Your task to perform on an android device: move an email to a new category in the gmail app Image 0: 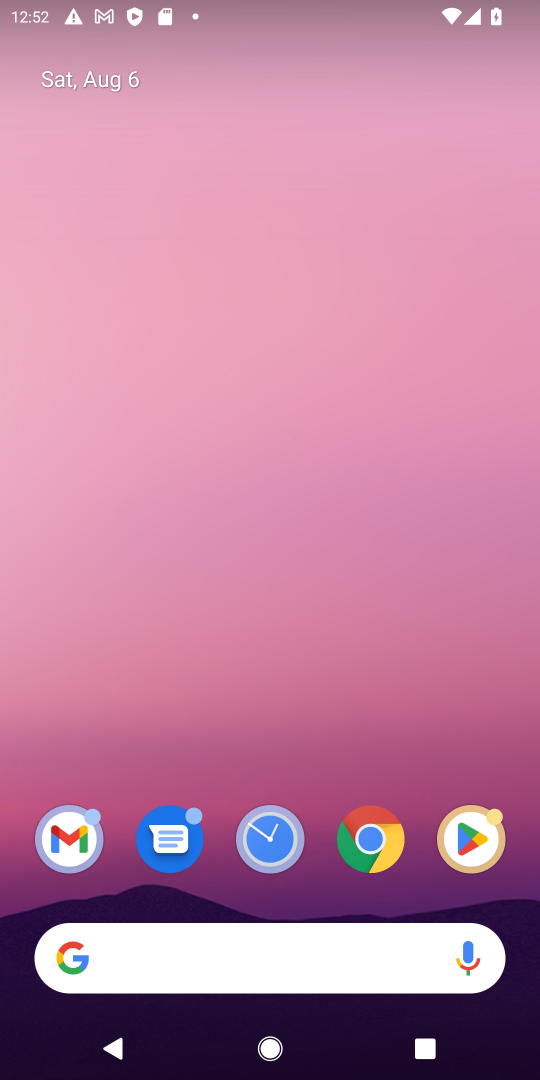
Step 0: click (48, 828)
Your task to perform on an android device: move an email to a new category in the gmail app Image 1: 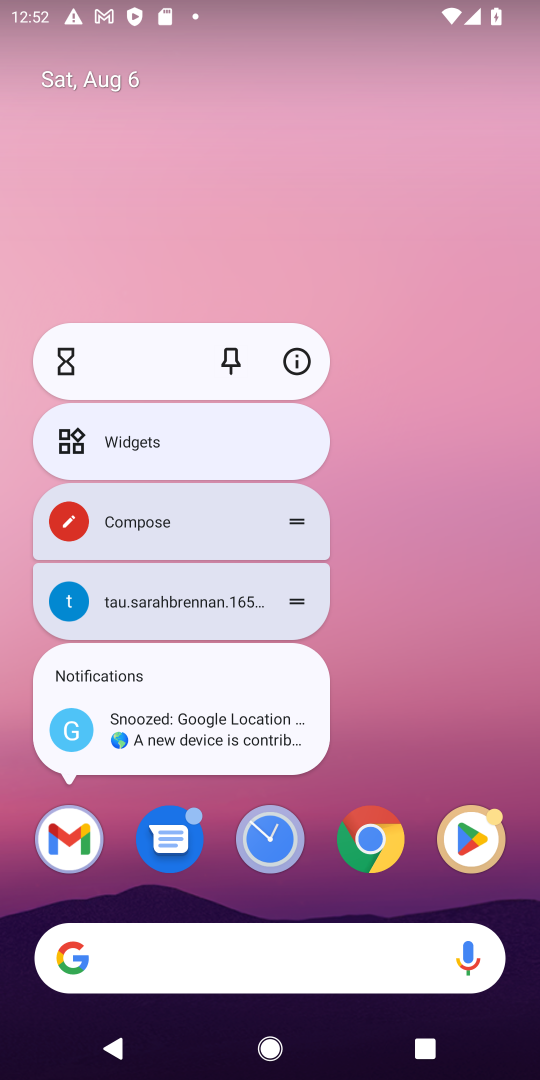
Step 1: click (48, 828)
Your task to perform on an android device: move an email to a new category in the gmail app Image 2: 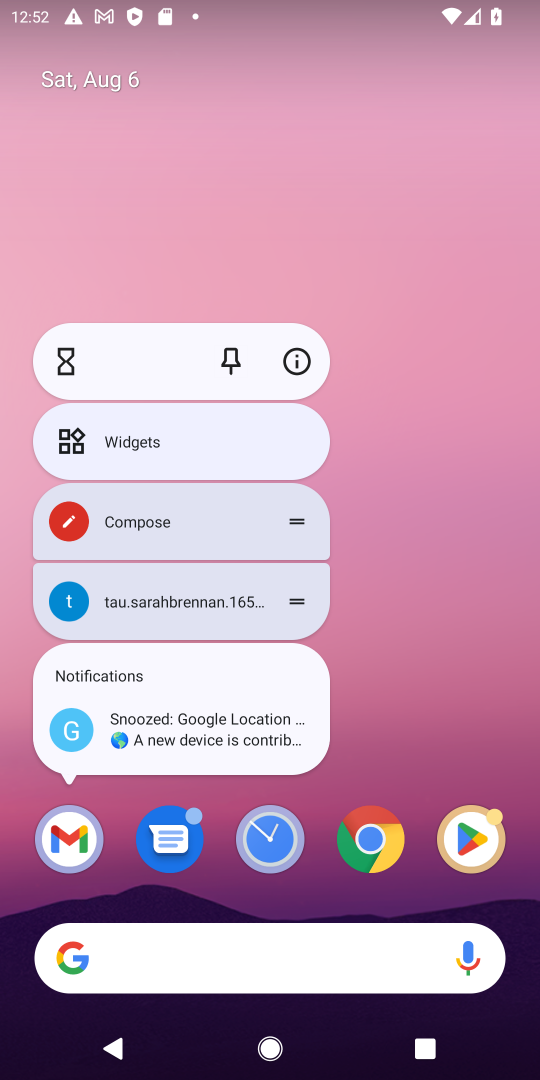
Step 2: click (79, 831)
Your task to perform on an android device: move an email to a new category in the gmail app Image 3: 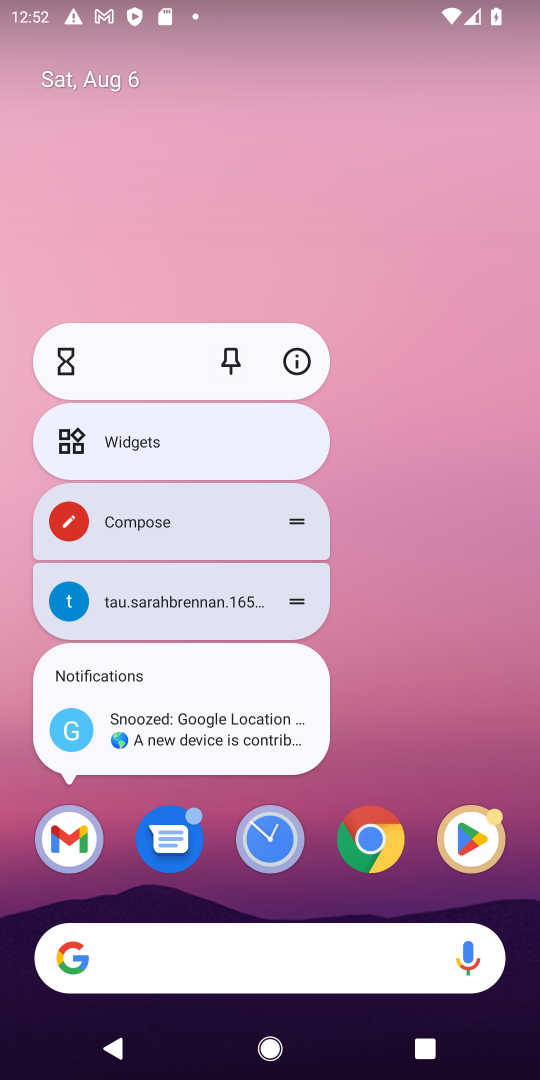
Step 3: click (79, 831)
Your task to perform on an android device: move an email to a new category in the gmail app Image 4: 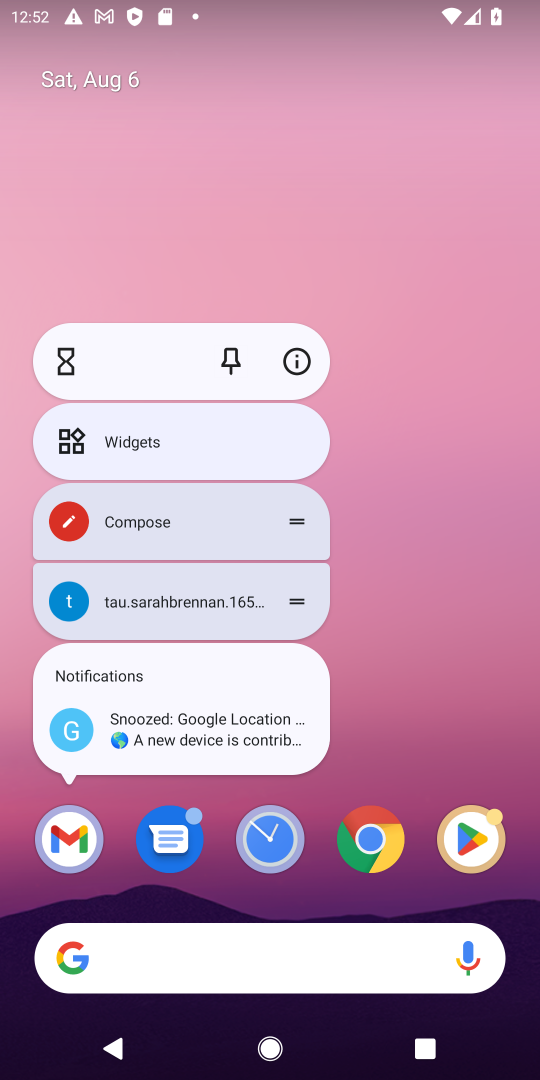
Step 4: click (79, 831)
Your task to perform on an android device: move an email to a new category in the gmail app Image 5: 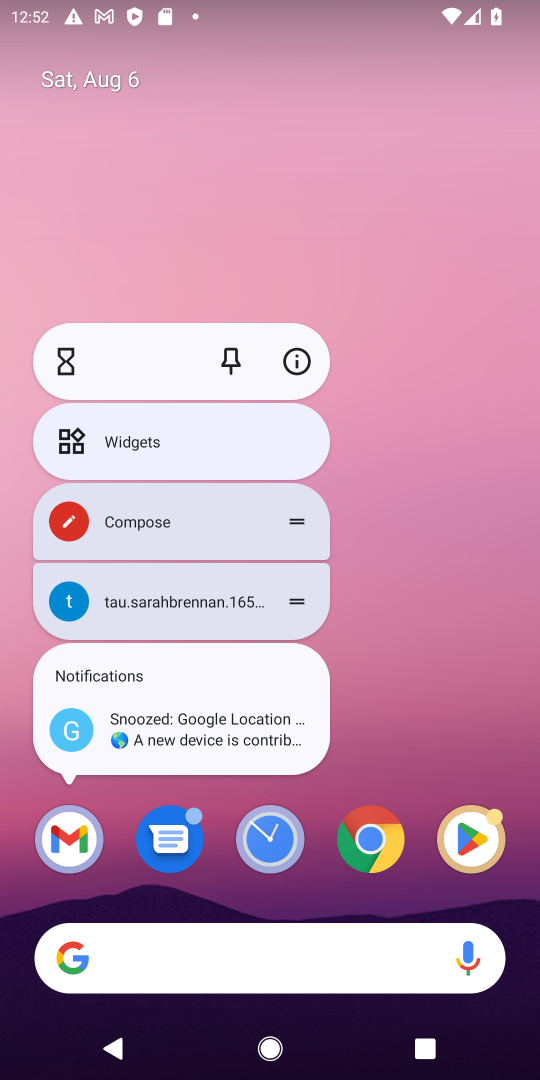
Step 5: click (79, 831)
Your task to perform on an android device: move an email to a new category in the gmail app Image 6: 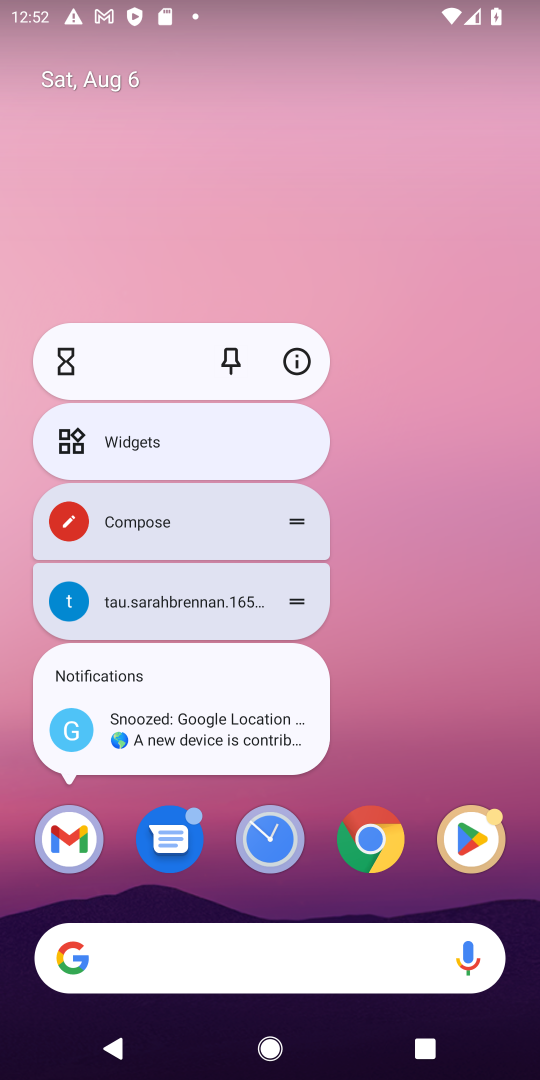
Step 6: click (79, 831)
Your task to perform on an android device: move an email to a new category in the gmail app Image 7: 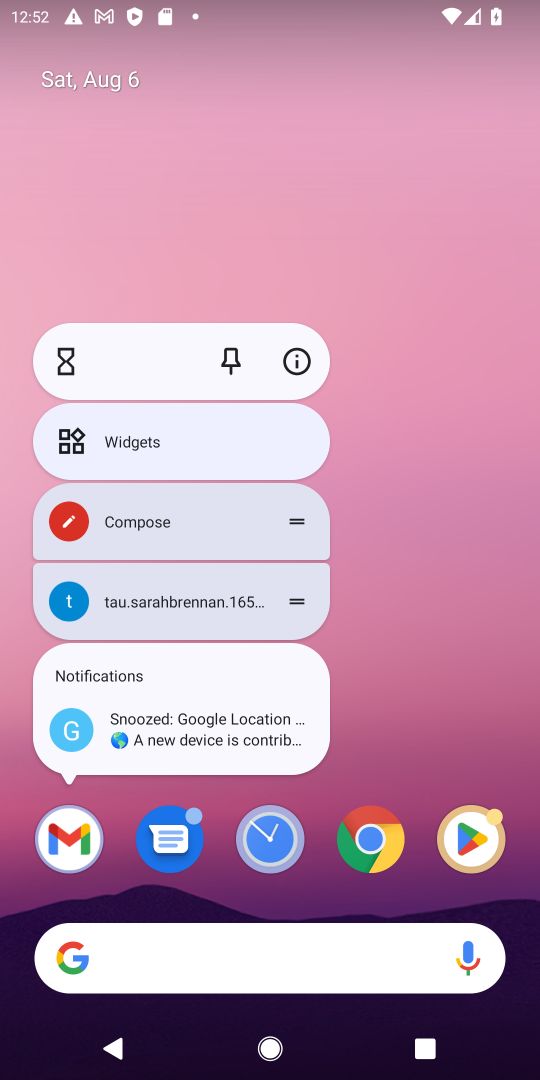
Step 7: click (79, 831)
Your task to perform on an android device: move an email to a new category in the gmail app Image 8: 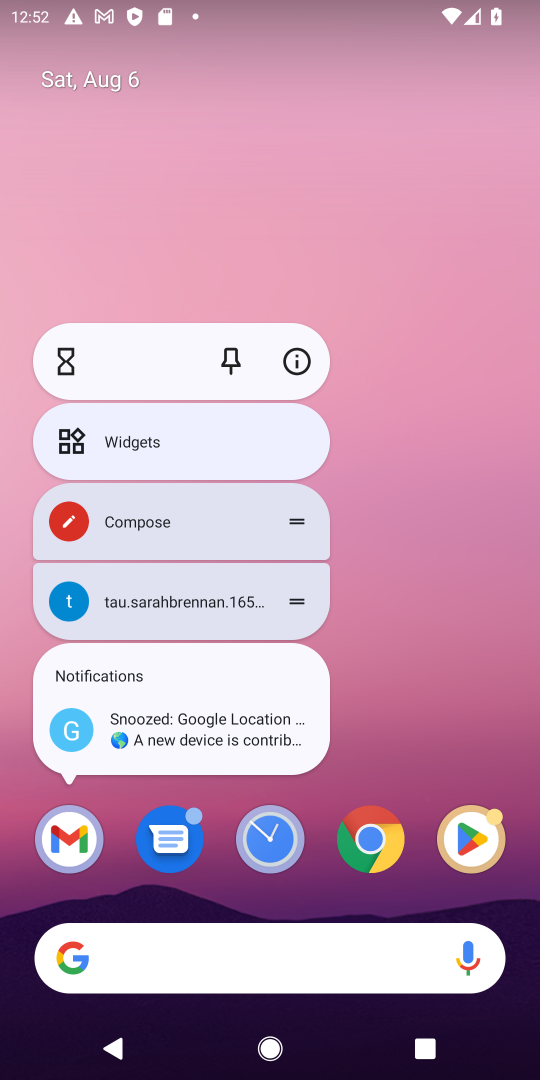
Step 8: click (79, 831)
Your task to perform on an android device: move an email to a new category in the gmail app Image 9: 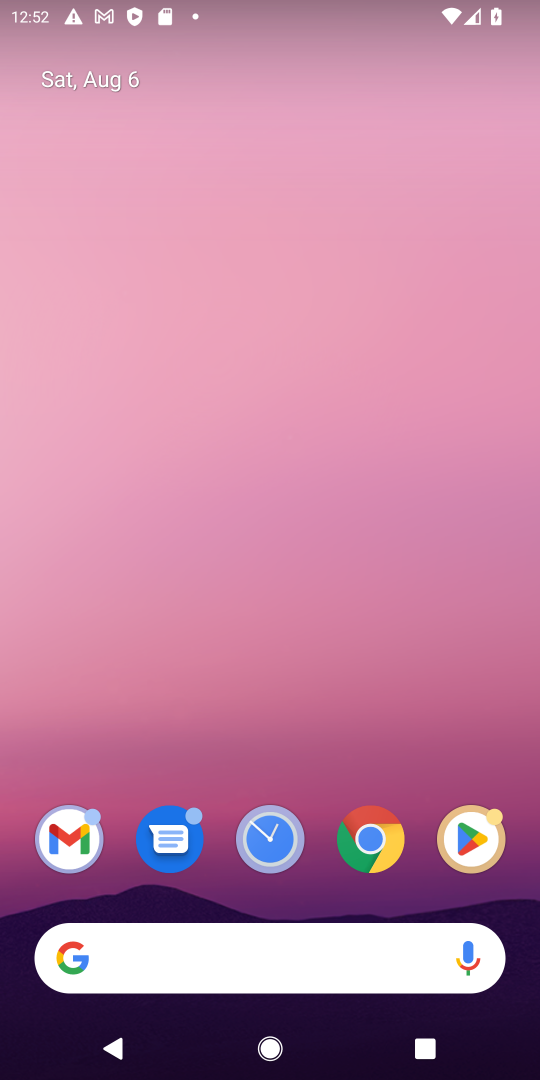
Step 9: click (53, 853)
Your task to perform on an android device: move an email to a new category in the gmail app Image 10: 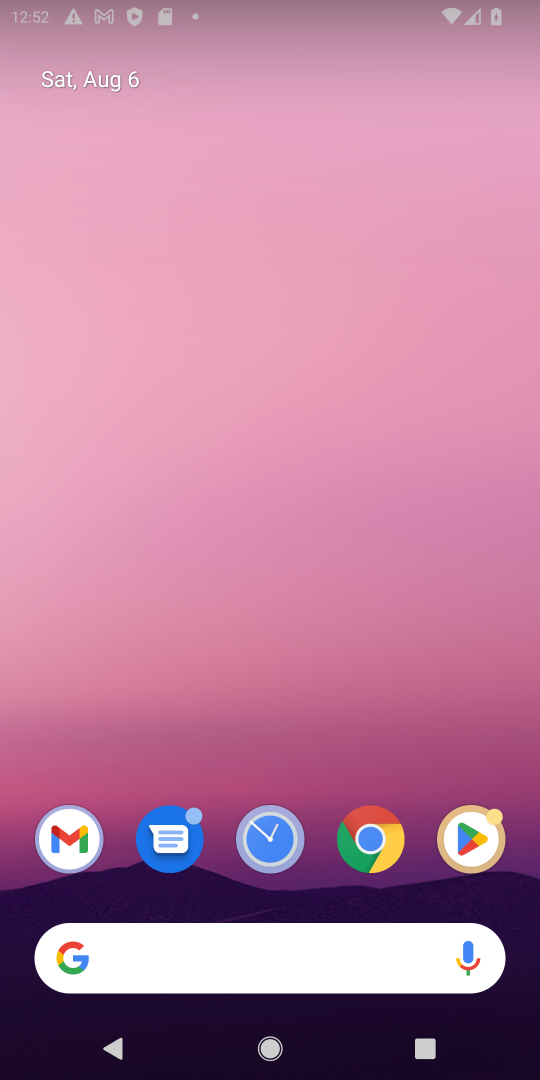
Step 10: click (53, 853)
Your task to perform on an android device: move an email to a new category in the gmail app Image 11: 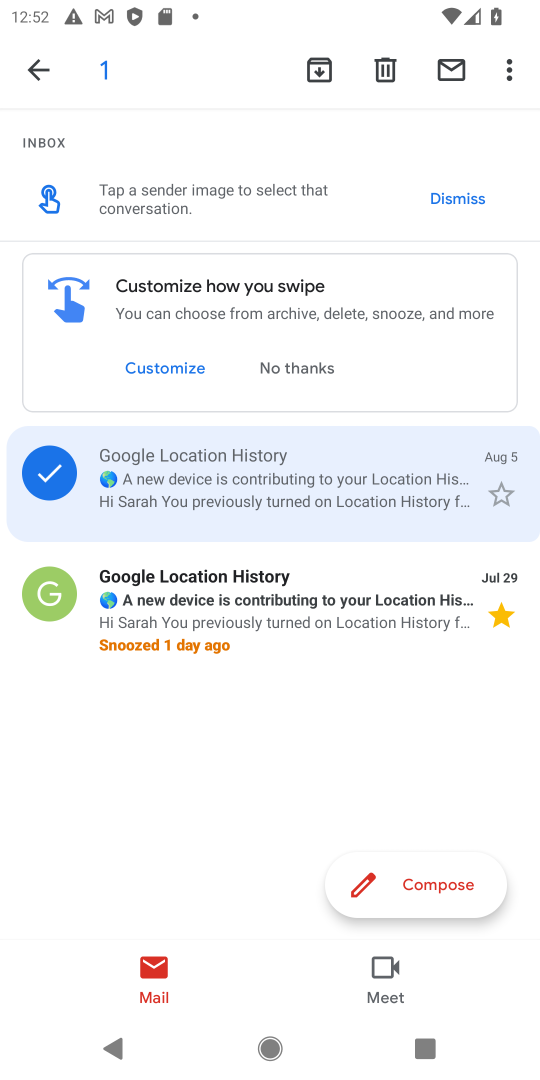
Step 11: click (84, 856)
Your task to perform on an android device: move an email to a new category in the gmail app Image 12: 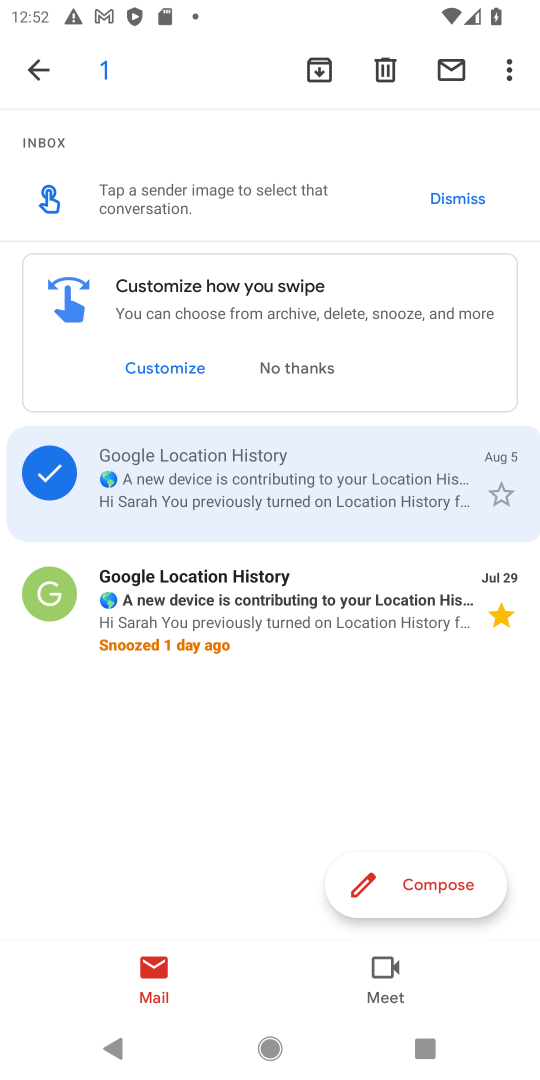
Step 12: click (513, 56)
Your task to perform on an android device: move an email to a new category in the gmail app Image 13: 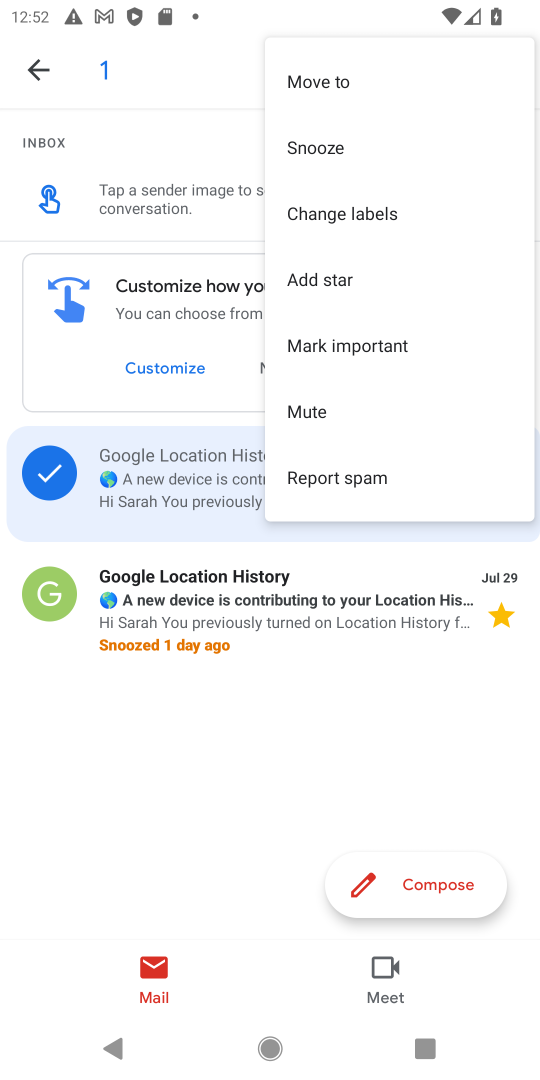
Step 13: click (359, 210)
Your task to perform on an android device: move an email to a new category in the gmail app Image 14: 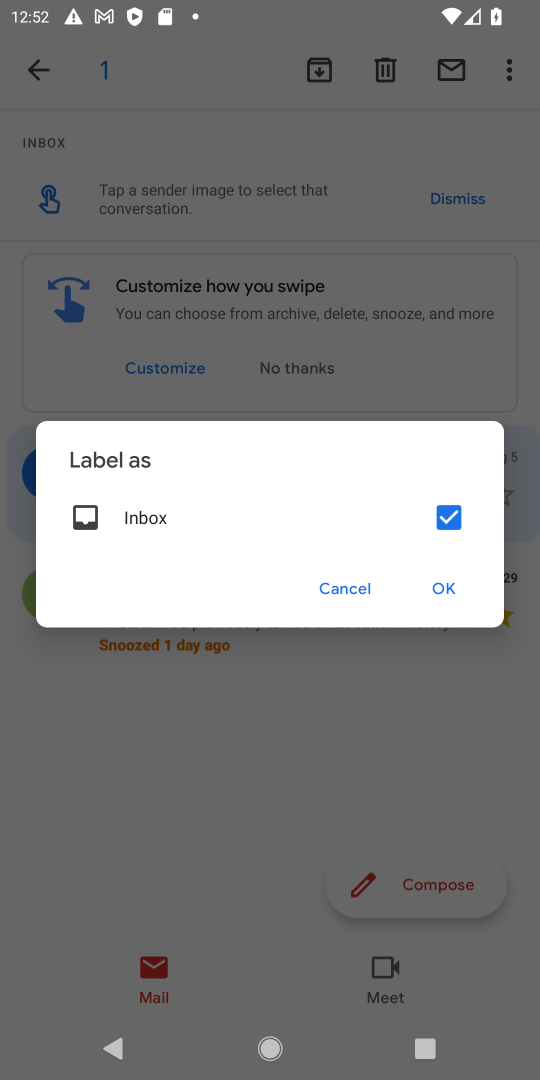
Step 14: click (427, 589)
Your task to perform on an android device: move an email to a new category in the gmail app Image 15: 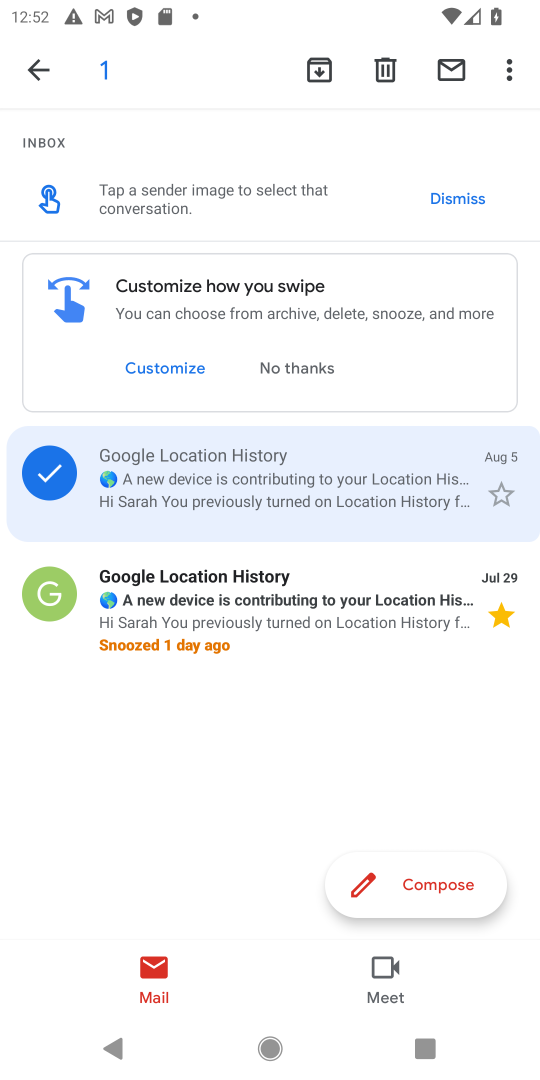
Step 15: task complete